Your task to perform on an android device: turn off improve location accuracy Image 0: 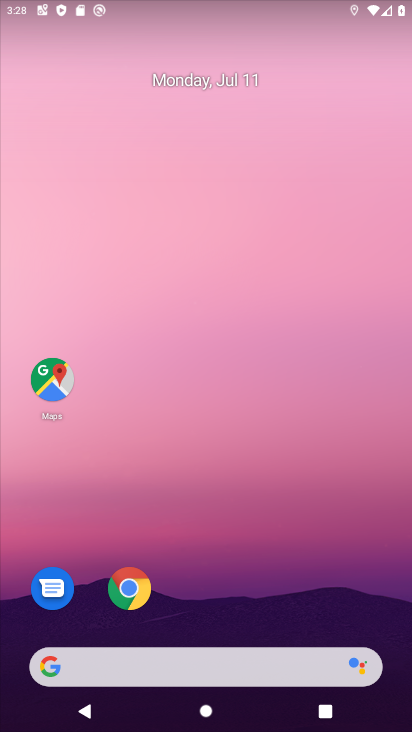
Step 0: drag from (198, 659) to (243, 253)
Your task to perform on an android device: turn off improve location accuracy Image 1: 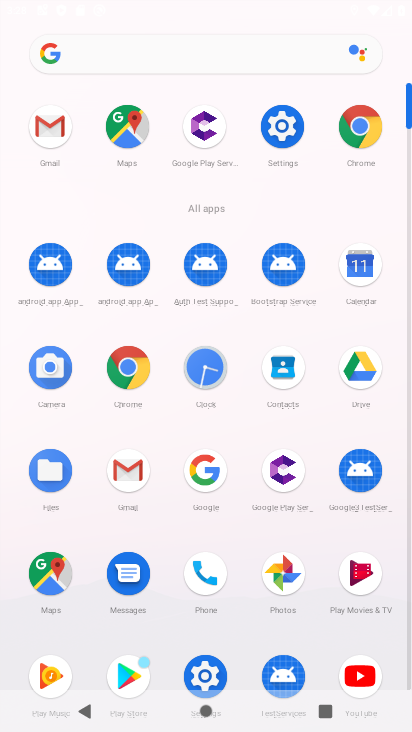
Step 1: click (274, 133)
Your task to perform on an android device: turn off improve location accuracy Image 2: 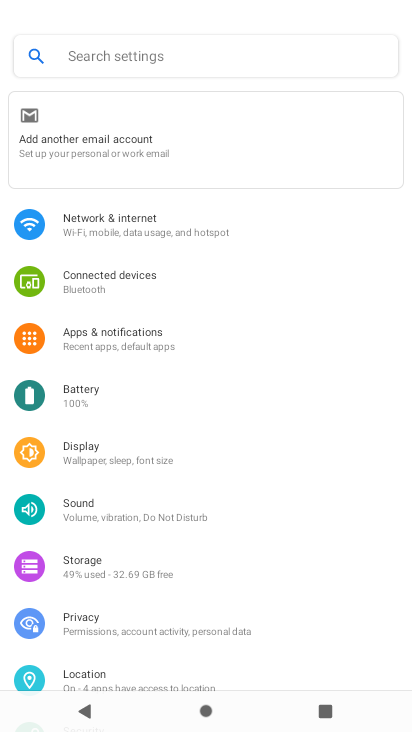
Step 2: click (126, 679)
Your task to perform on an android device: turn off improve location accuracy Image 3: 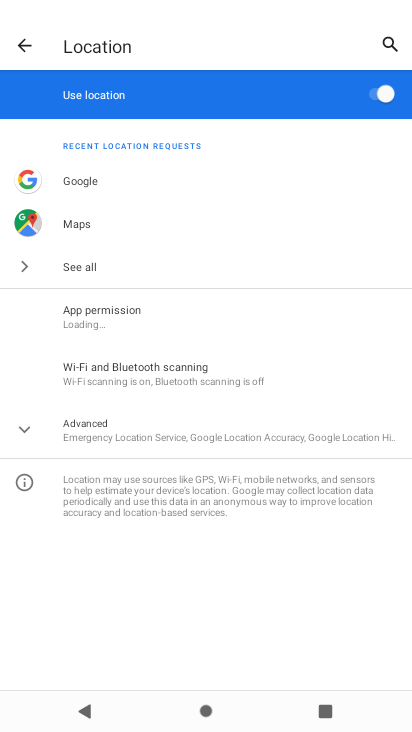
Step 3: click (123, 426)
Your task to perform on an android device: turn off improve location accuracy Image 4: 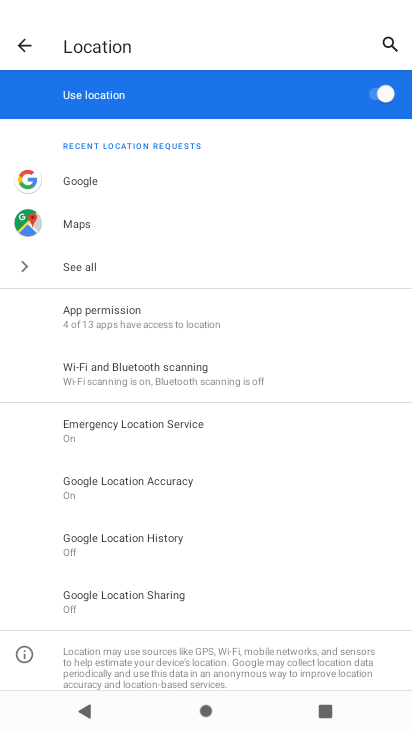
Step 4: click (370, 91)
Your task to perform on an android device: turn off improve location accuracy Image 5: 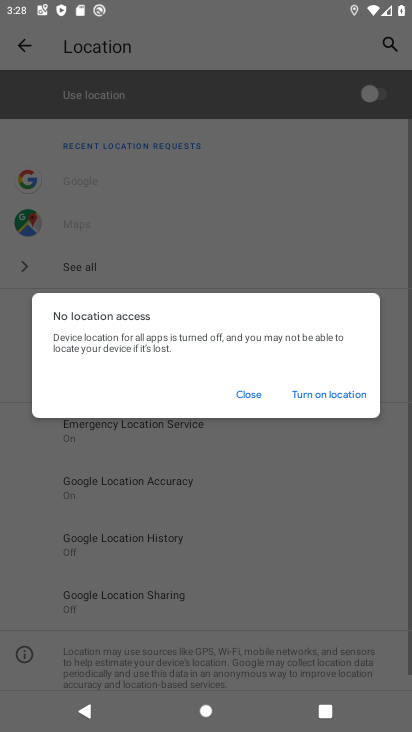
Step 5: click (387, 95)
Your task to perform on an android device: turn off improve location accuracy Image 6: 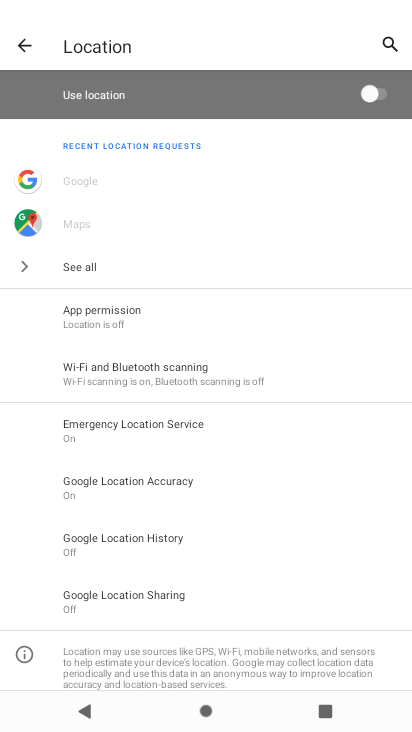
Step 6: click (158, 483)
Your task to perform on an android device: turn off improve location accuracy Image 7: 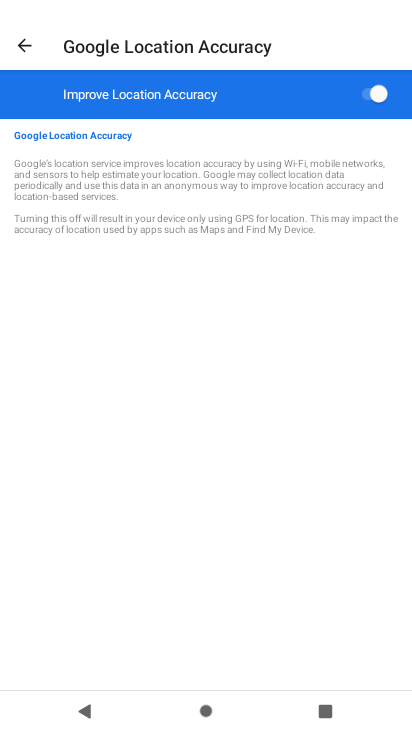
Step 7: click (366, 96)
Your task to perform on an android device: turn off improve location accuracy Image 8: 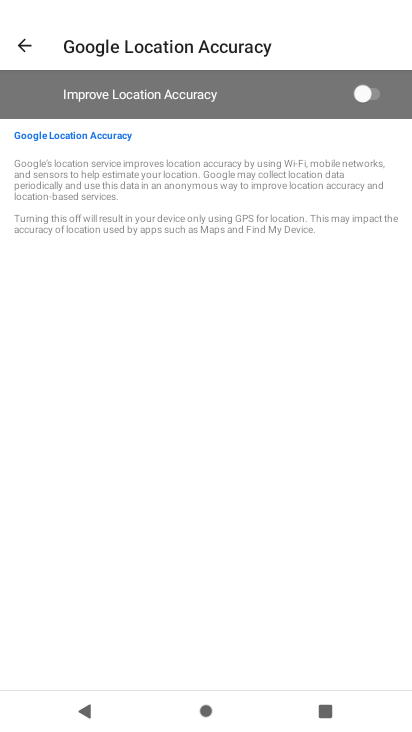
Step 8: task complete